Your task to perform on an android device: change the clock display to show seconds Image 0: 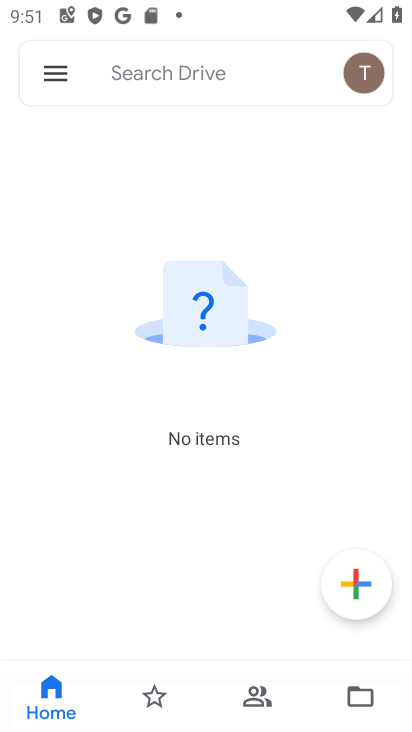
Step 0: press home button
Your task to perform on an android device: change the clock display to show seconds Image 1: 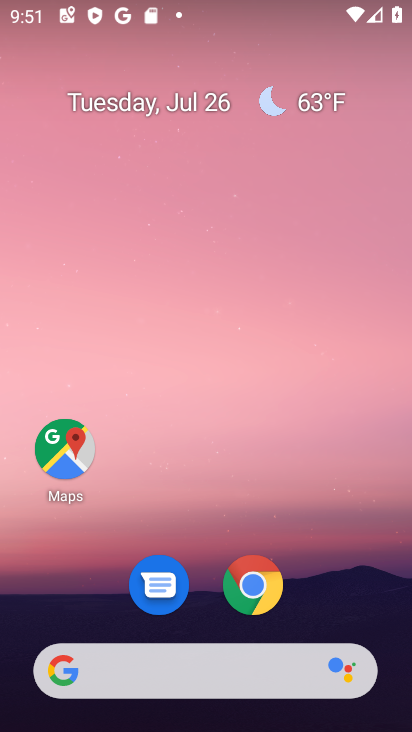
Step 1: drag from (365, 497) to (332, 91)
Your task to perform on an android device: change the clock display to show seconds Image 2: 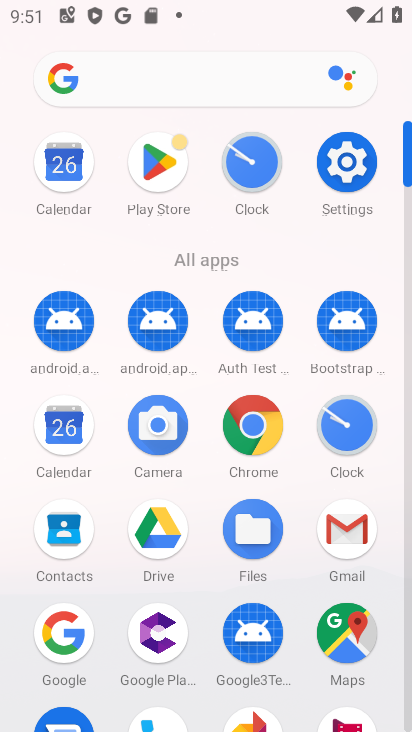
Step 2: click (250, 184)
Your task to perform on an android device: change the clock display to show seconds Image 3: 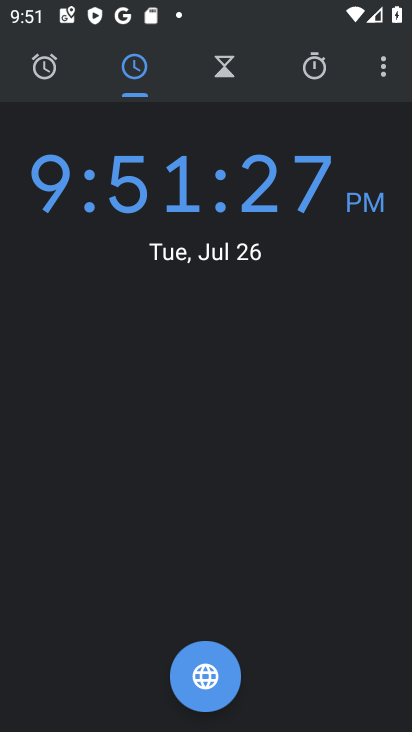
Step 3: task complete